Your task to perform on an android device: Check the news Image 0: 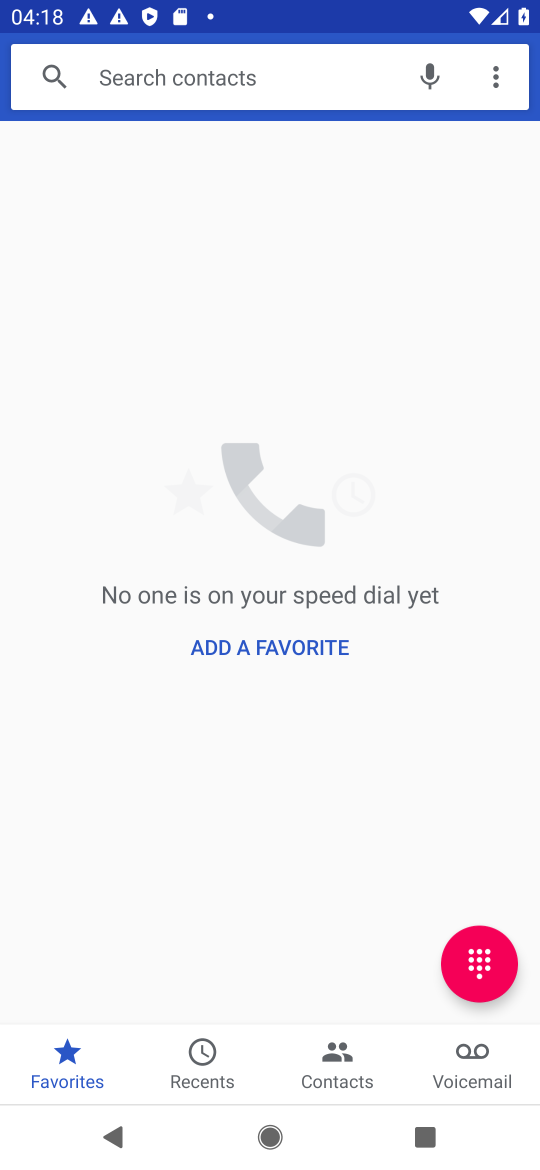
Step 0: press home button
Your task to perform on an android device: Check the news Image 1: 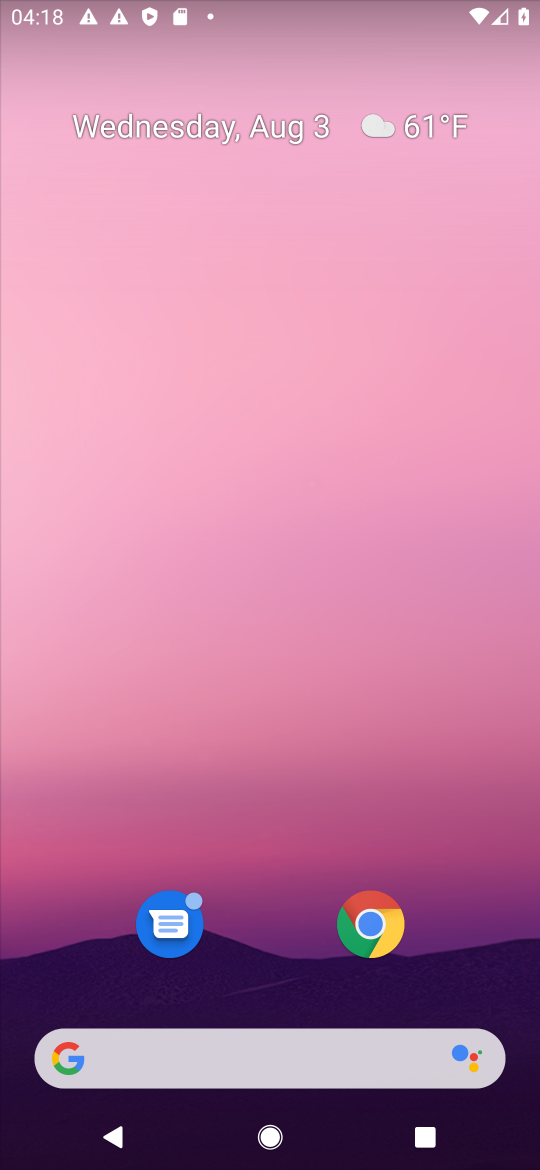
Step 1: drag from (278, 966) to (243, 331)
Your task to perform on an android device: Check the news Image 2: 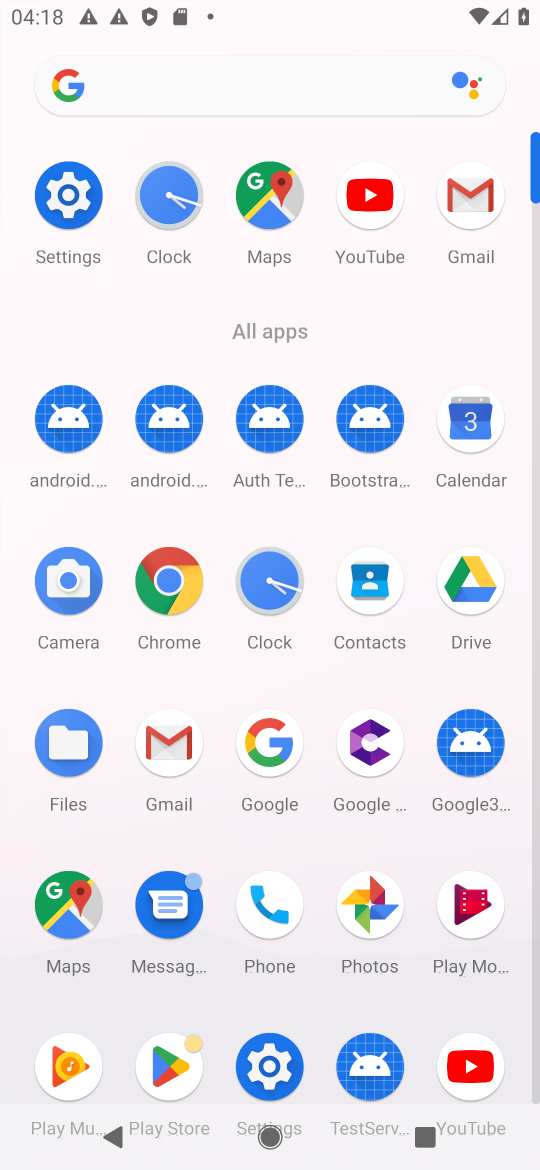
Step 2: click (256, 764)
Your task to perform on an android device: Check the news Image 3: 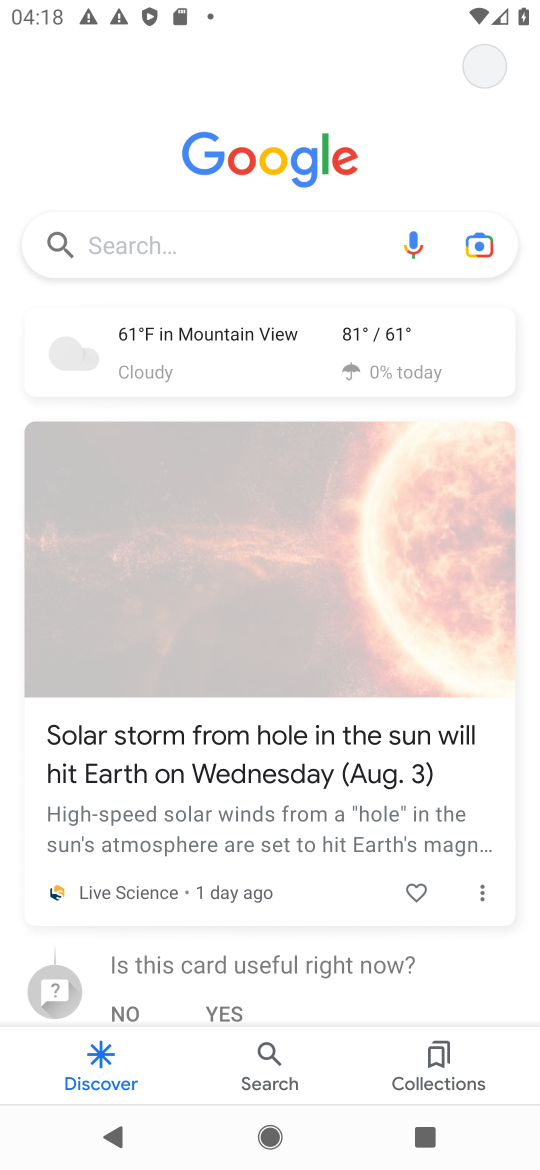
Step 3: click (170, 237)
Your task to perform on an android device: Check the news Image 4: 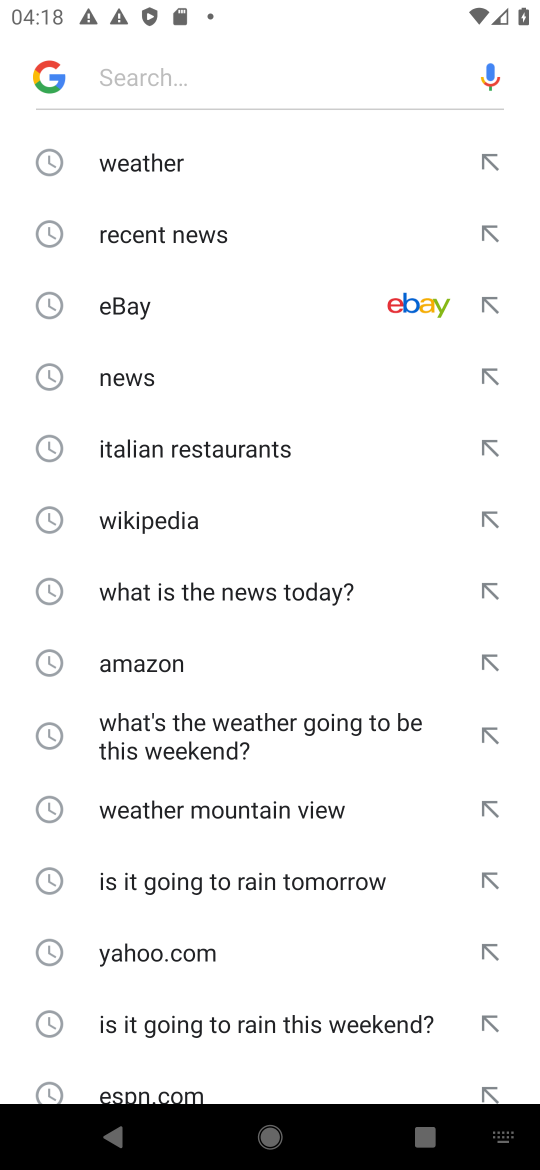
Step 4: click (192, 374)
Your task to perform on an android device: Check the news Image 5: 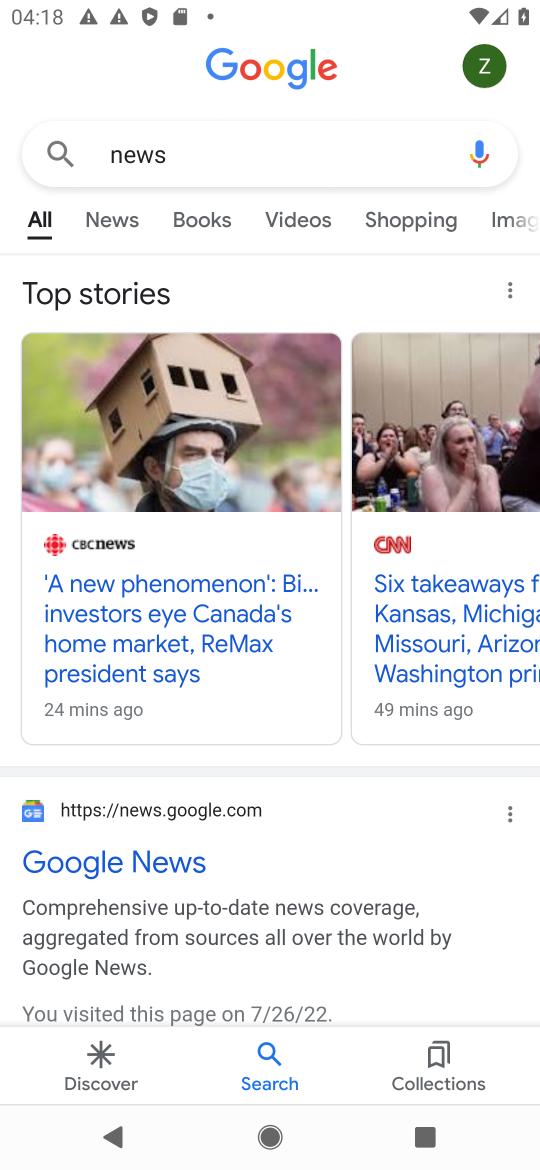
Step 5: click (129, 217)
Your task to perform on an android device: Check the news Image 6: 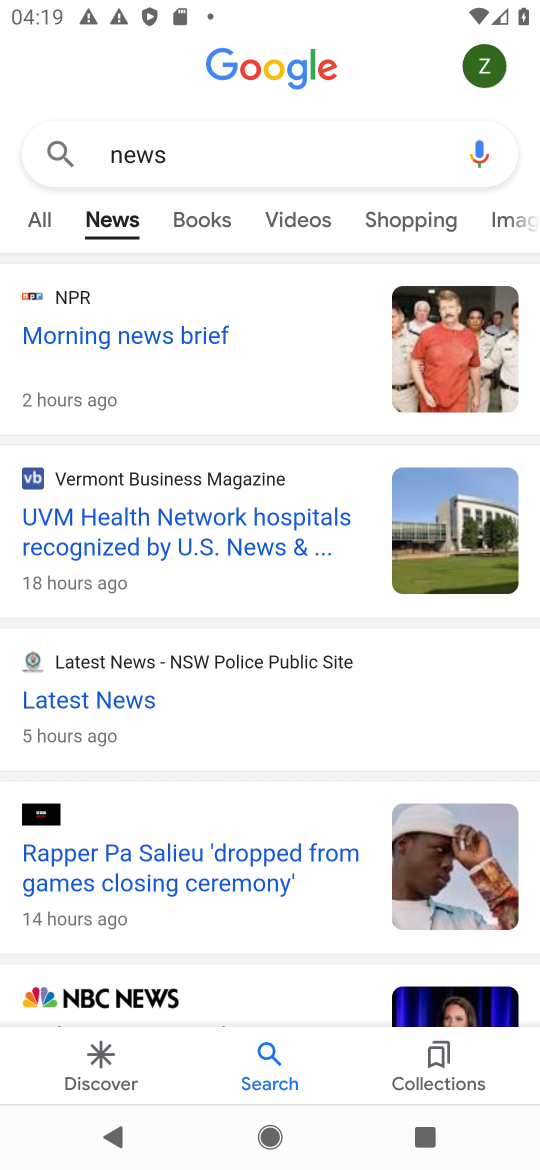
Step 6: task complete